Your task to perform on an android device: Go to Wikipedia Image 0: 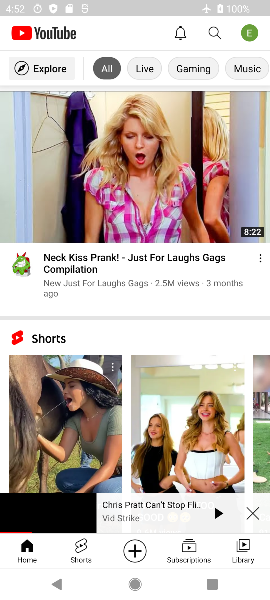
Step 0: press back button
Your task to perform on an android device: Go to Wikipedia Image 1: 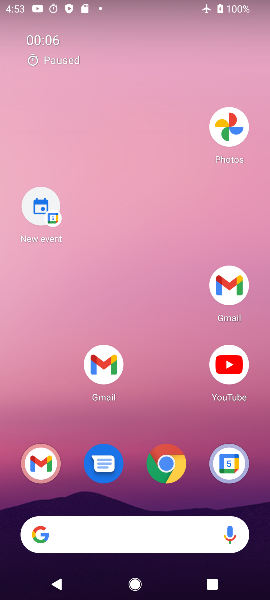
Step 1: click (126, 157)
Your task to perform on an android device: Go to Wikipedia Image 2: 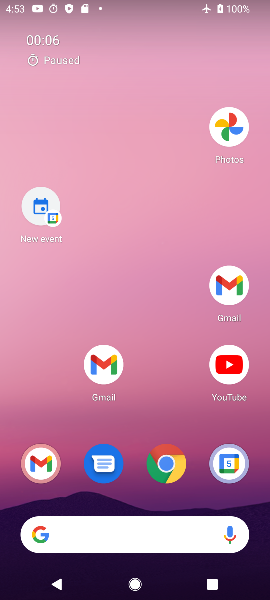
Step 2: drag from (119, 456) to (109, 128)
Your task to perform on an android device: Go to Wikipedia Image 3: 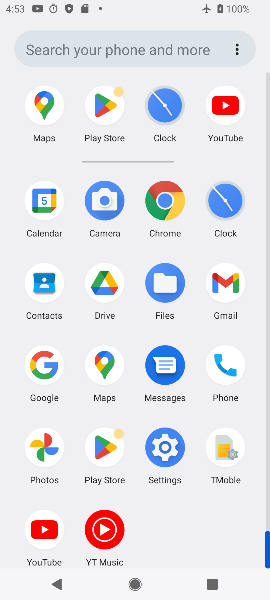
Step 3: click (165, 212)
Your task to perform on an android device: Go to Wikipedia Image 4: 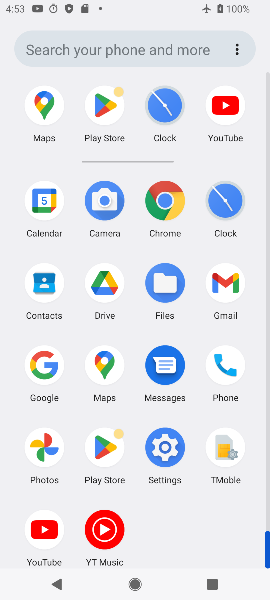
Step 4: click (165, 212)
Your task to perform on an android device: Go to Wikipedia Image 5: 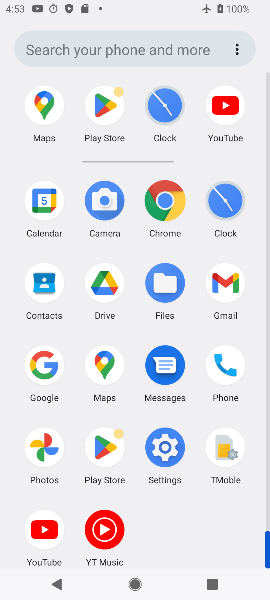
Step 5: click (165, 212)
Your task to perform on an android device: Go to Wikipedia Image 6: 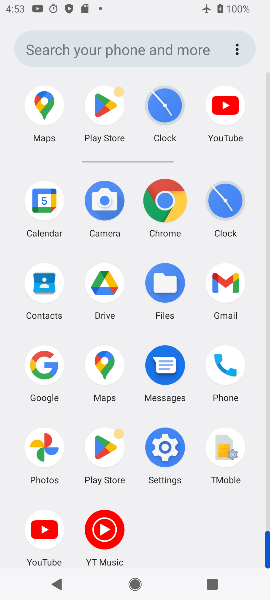
Step 6: click (165, 212)
Your task to perform on an android device: Go to Wikipedia Image 7: 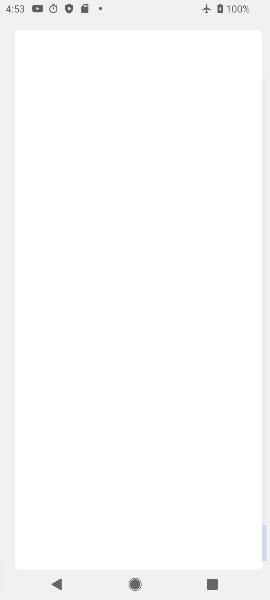
Step 7: click (165, 212)
Your task to perform on an android device: Go to Wikipedia Image 8: 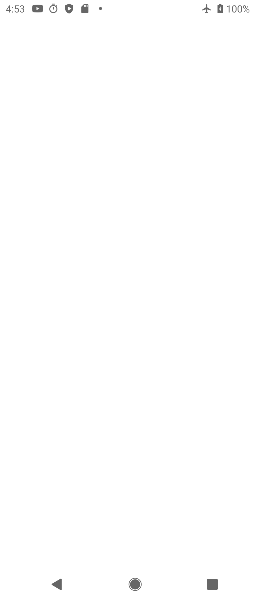
Step 8: click (165, 212)
Your task to perform on an android device: Go to Wikipedia Image 9: 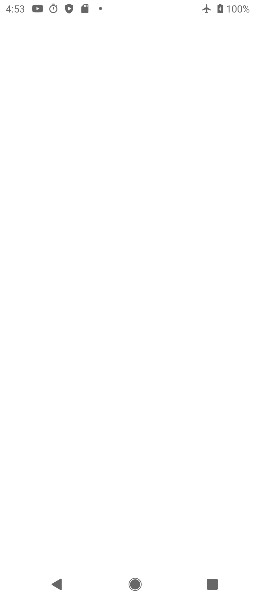
Step 9: click (164, 204)
Your task to perform on an android device: Go to Wikipedia Image 10: 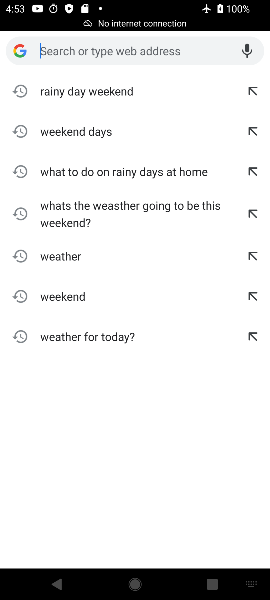
Step 10: press back button
Your task to perform on an android device: Go to Wikipedia Image 11: 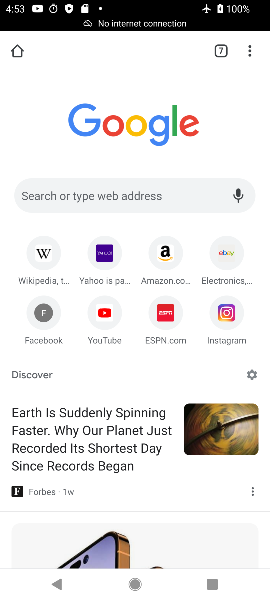
Step 11: click (31, 253)
Your task to perform on an android device: Go to Wikipedia Image 12: 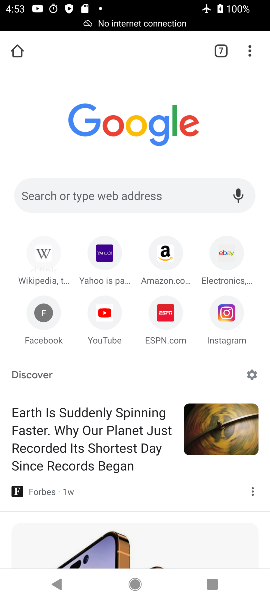
Step 12: click (35, 256)
Your task to perform on an android device: Go to Wikipedia Image 13: 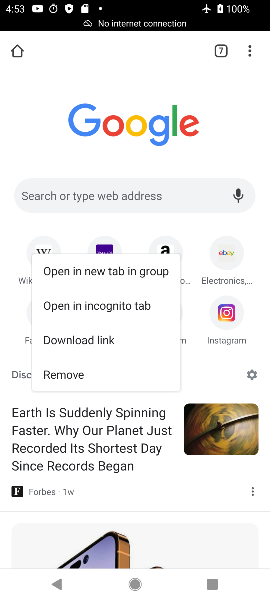
Step 13: click (35, 256)
Your task to perform on an android device: Go to Wikipedia Image 14: 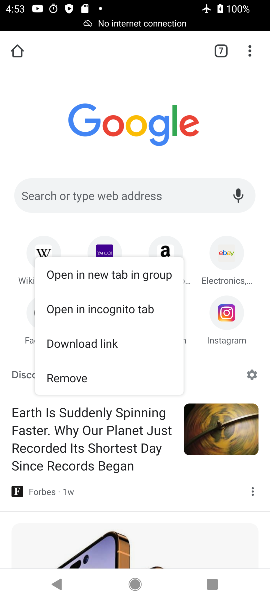
Step 14: click (36, 257)
Your task to perform on an android device: Go to Wikipedia Image 15: 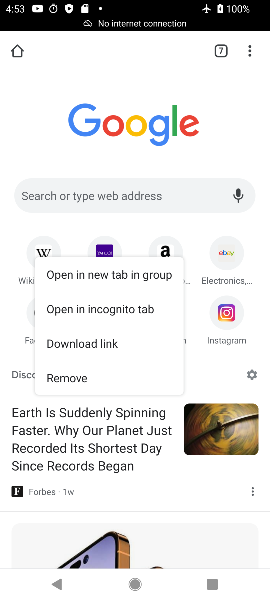
Step 15: click (39, 262)
Your task to perform on an android device: Go to Wikipedia Image 16: 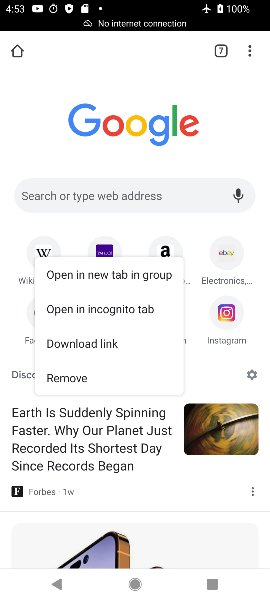
Step 16: click (39, 262)
Your task to perform on an android device: Go to Wikipedia Image 17: 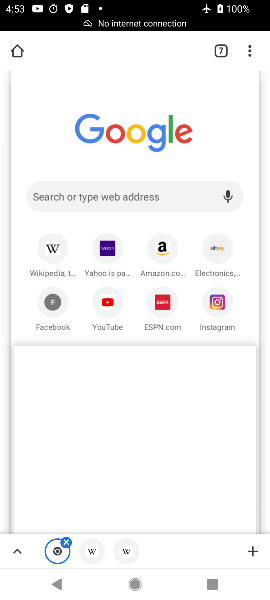
Step 17: click (29, 248)
Your task to perform on an android device: Go to Wikipedia Image 18: 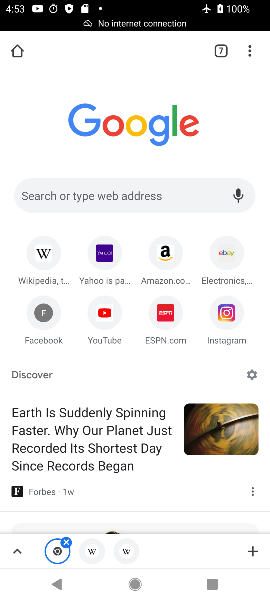
Step 18: click (29, 248)
Your task to perform on an android device: Go to Wikipedia Image 19: 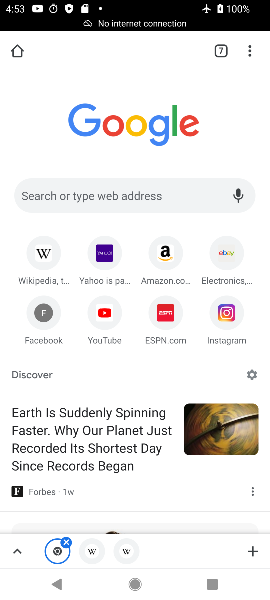
Step 19: click (33, 249)
Your task to perform on an android device: Go to Wikipedia Image 20: 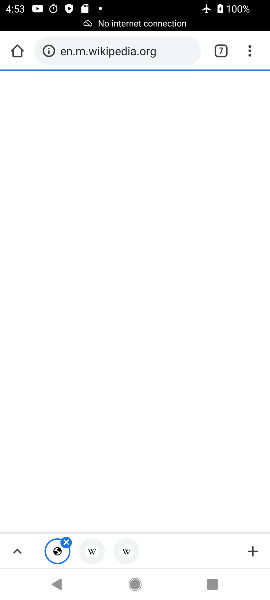
Step 20: click (44, 255)
Your task to perform on an android device: Go to Wikipedia Image 21: 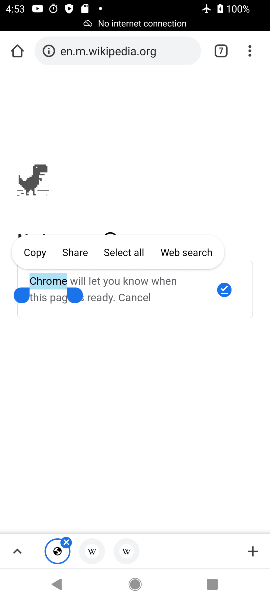
Step 21: task complete